Your task to perform on an android device: open a new tab in the chrome app Image 0: 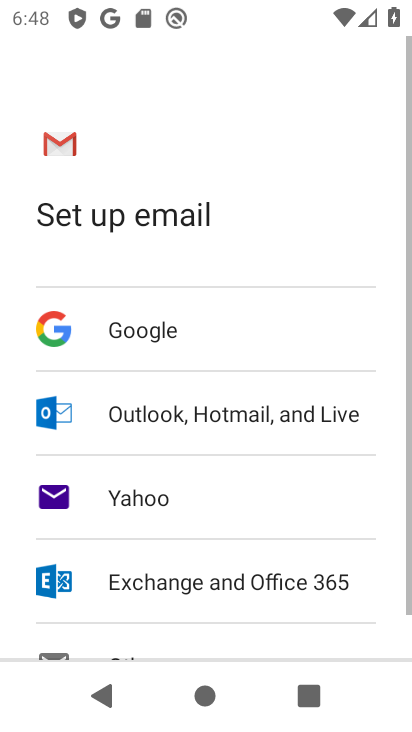
Step 0: press home button
Your task to perform on an android device: open a new tab in the chrome app Image 1: 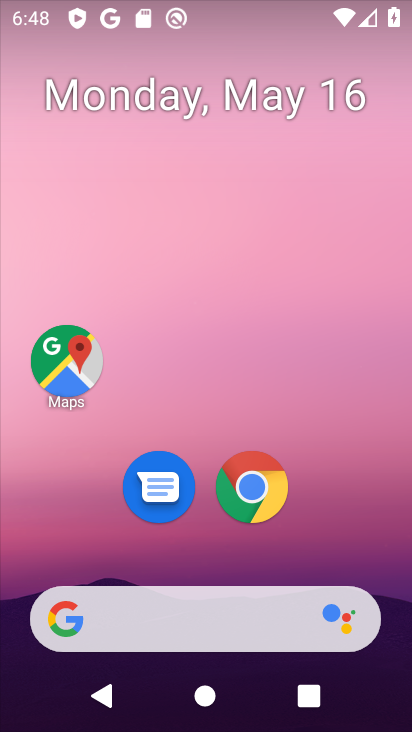
Step 1: click (275, 471)
Your task to perform on an android device: open a new tab in the chrome app Image 2: 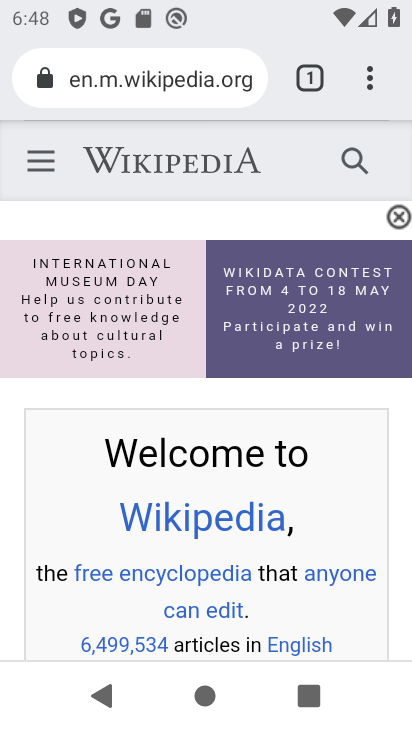
Step 2: click (314, 93)
Your task to perform on an android device: open a new tab in the chrome app Image 3: 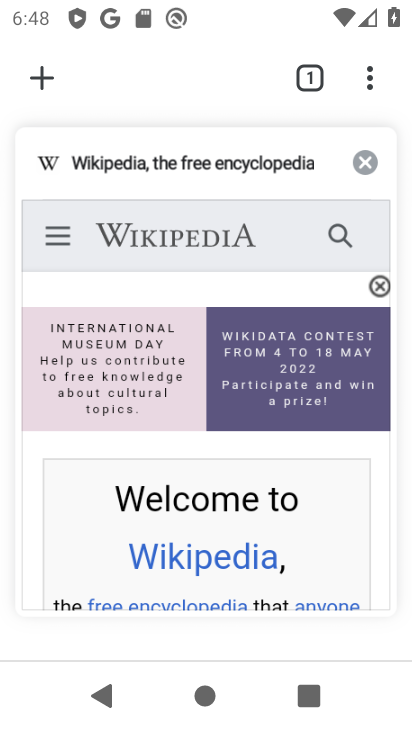
Step 3: click (50, 81)
Your task to perform on an android device: open a new tab in the chrome app Image 4: 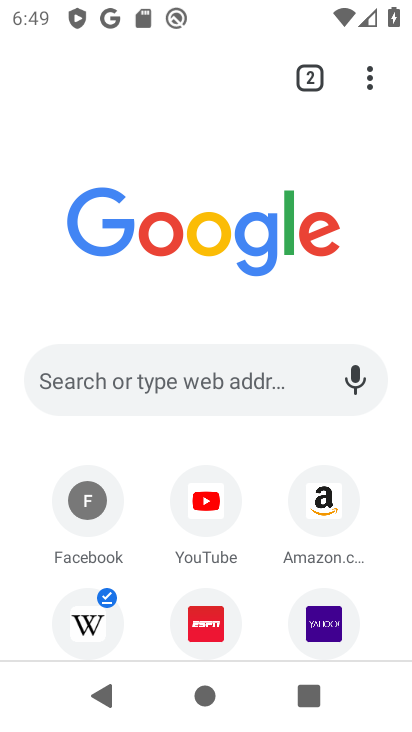
Step 4: task complete